Your task to perform on an android device: delete browsing data in the chrome app Image 0: 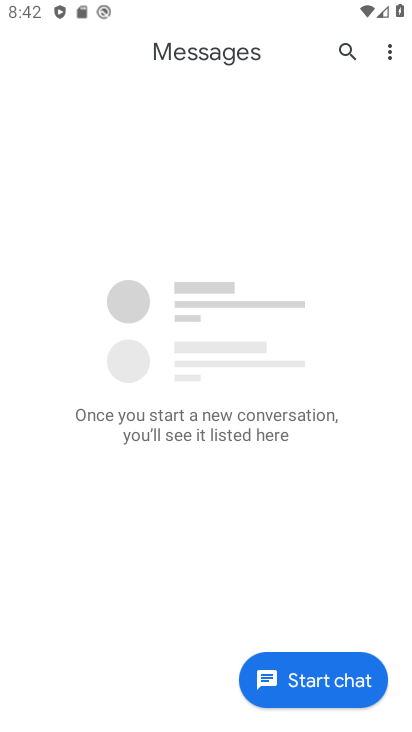
Step 0: press home button
Your task to perform on an android device: delete browsing data in the chrome app Image 1: 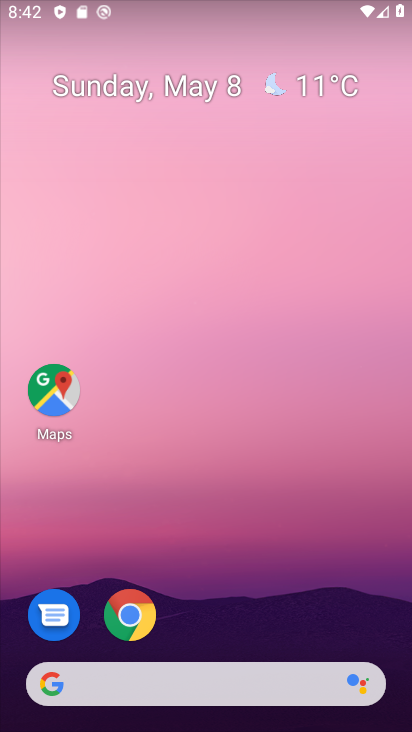
Step 1: click (130, 618)
Your task to perform on an android device: delete browsing data in the chrome app Image 2: 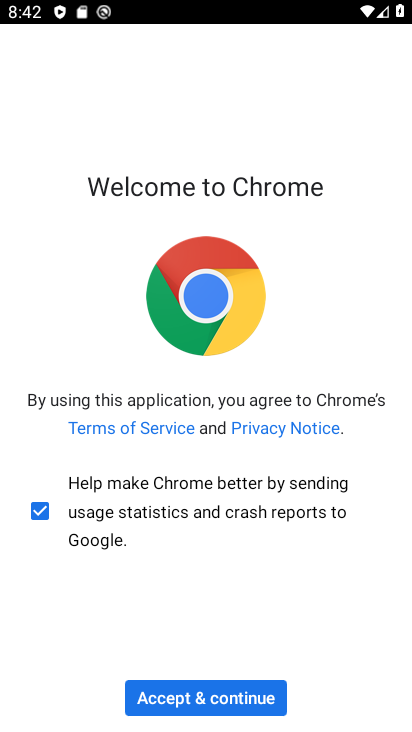
Step 2: click (269, 700)
Your task to perform on an android device: delete browsing data in the chrome app Image 3: 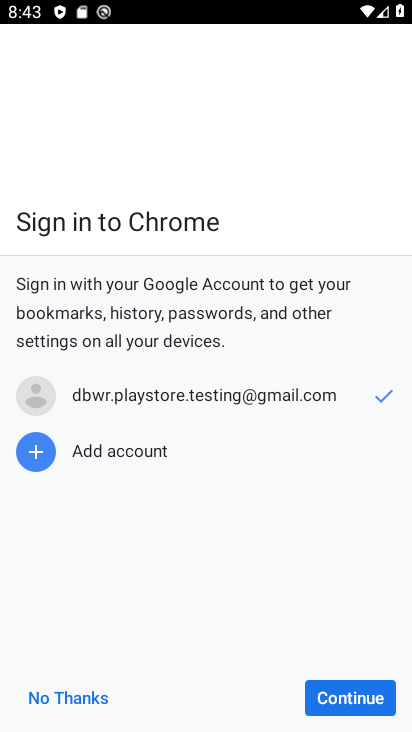
Step 3: click (328, 694)
Your task to perform on an android device: delete browsing data in the chrome app Image 4: 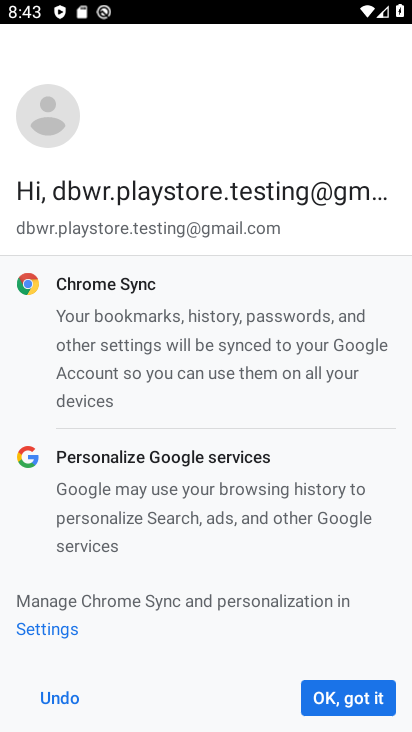
Step 4: click (328, 695)
Your task to perform on an android device: delete browsing data in the chrome app Image 5: 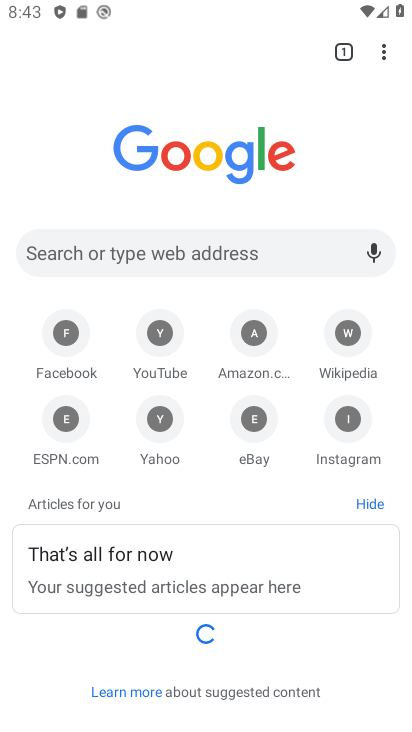
Step 5: click (359, 696)
Your task to perform on an android device: delete browsing data in the chrome app Image 6: 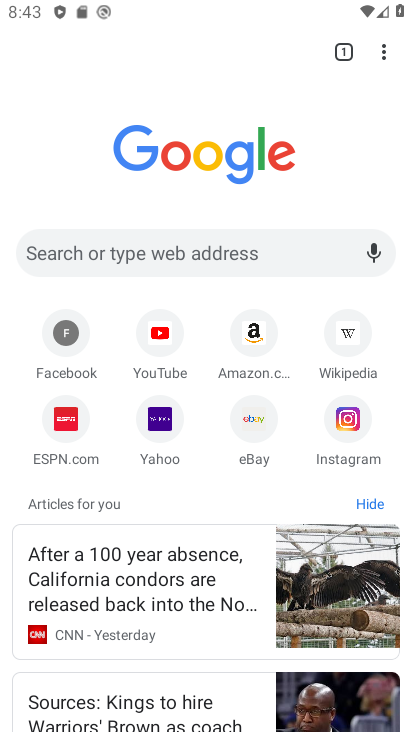
Step 6: click (383, 52)
Your task to perform on an android device: delete browsing data in the chrome app Image 7: 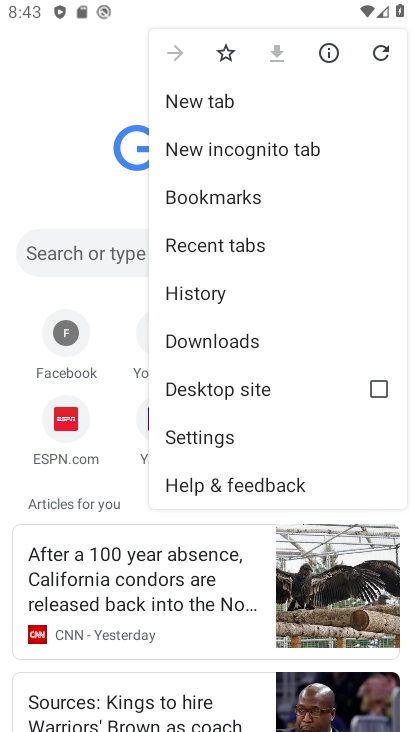
Step 7: click (212, 435)
Your task to perform on an android device: delete browsing data in the chrome app Image 8: 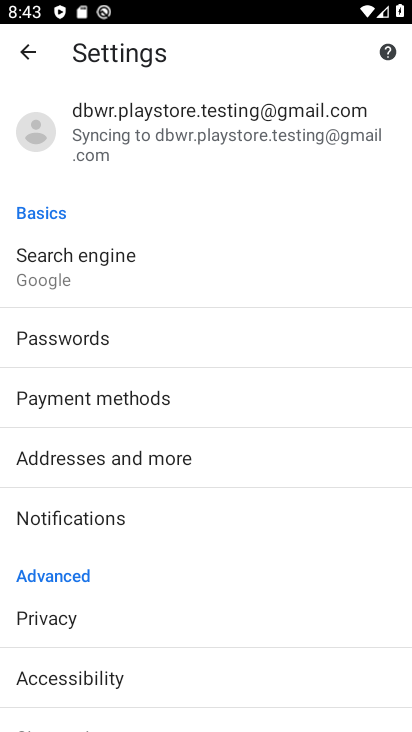
Step 8: drag from (119, 688) to (132, 368)
Your task to perform on an android device: delete browsing data in the chrome app Image 9: 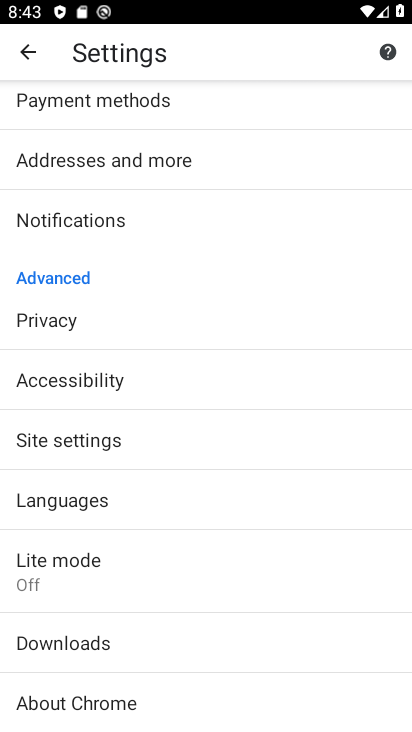
Step 9: click (63, 324)
Your task to perform on an android device: delete browsing data in the chrome app Image 10: 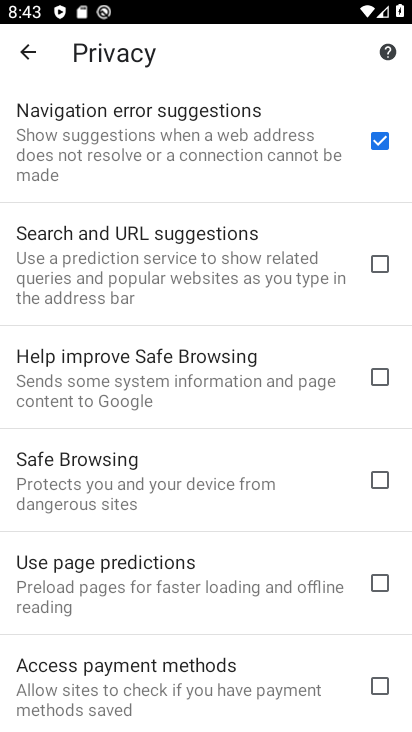
Step 10: drag from (141, 695) to (176, 284)
Your task to perform on an android device: delete browsing data in the chrome app Image 11: 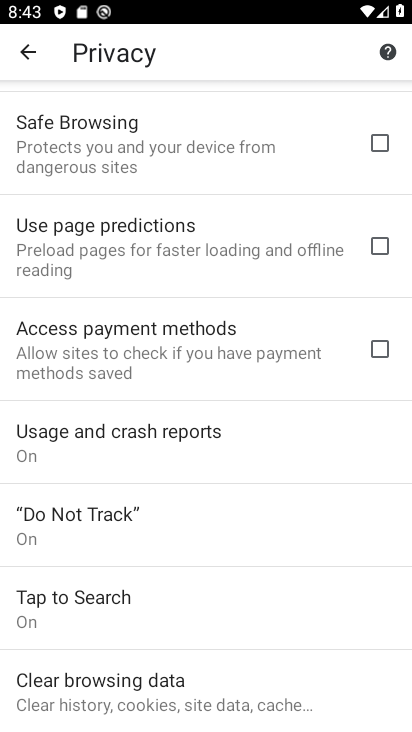
Step 11: drag from (274, 348) to (278, 292)
Your task to perform on an android device: delete browsing data in the chrome app Image 12: 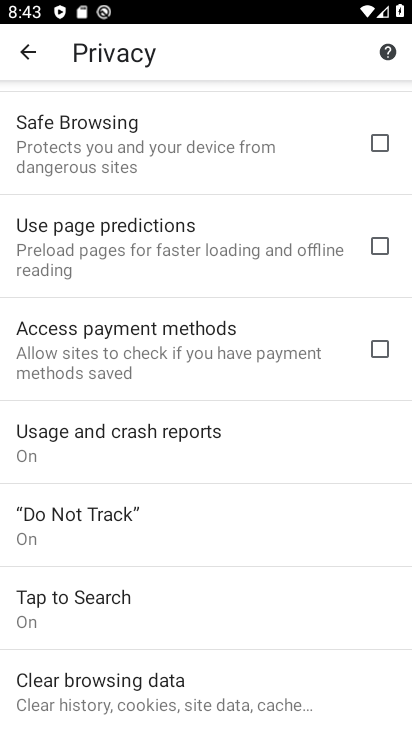
Step 12: click (108, 698)
Your task to perform on an android device: delete browsing data in the chrome app Image 13: 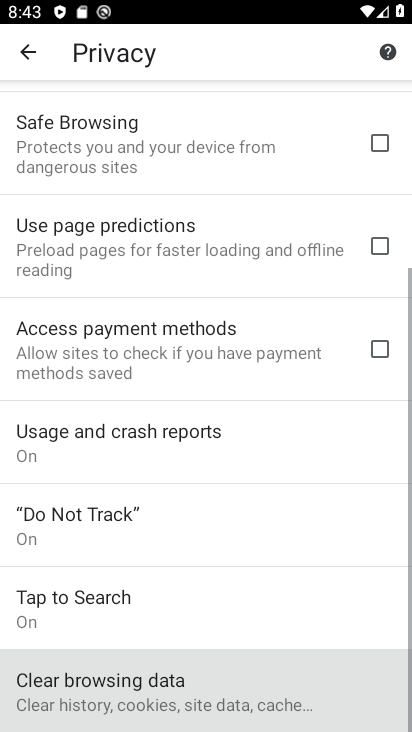
Step 13: click (63, 688)
Your task to perform on an android device: delete browsing data in the chrome app Image 14: 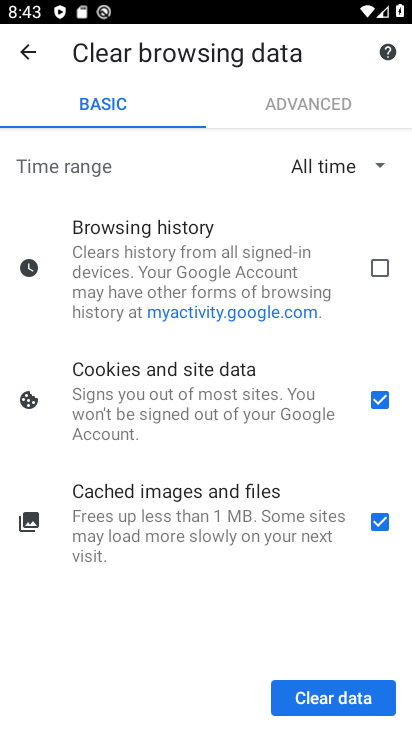
Step 14: click (378, 266)
Your task to perform on an android device: delete browsing data in the chrome app Image 15: 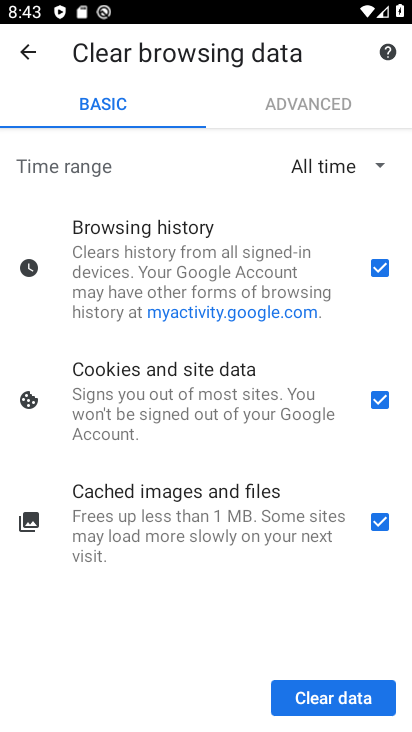
Step 15: click (327, 700)
Your task to perform on an android device: delete browsing data in the chrome app Image 16: 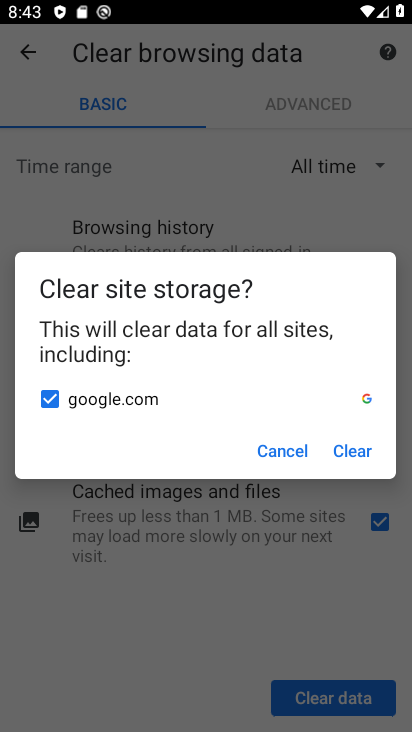
Step 16: click (353, 454)
Your task to perform on an android device: delete browsing data in the chrome app Image 17: 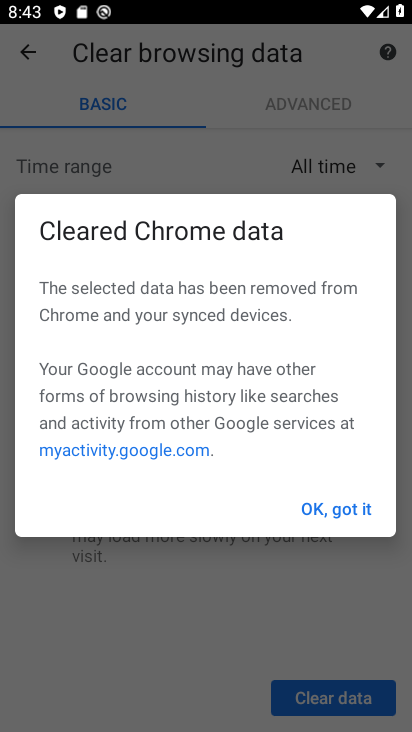
Step 17: click (364, 509)
Your task to perform on an android device: delete browsing data in the chrome app Image 18: 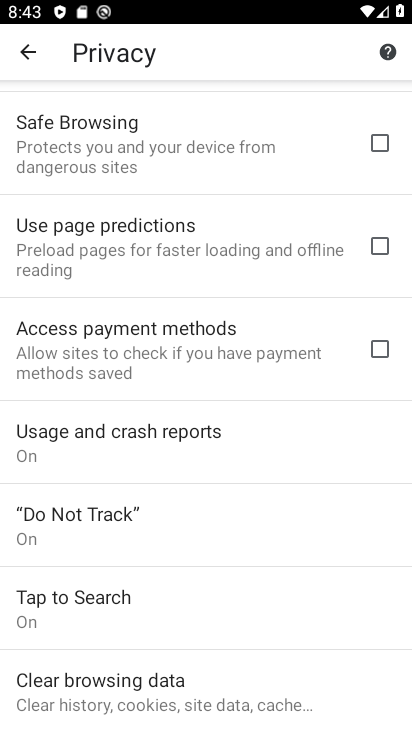
Step 18: task complete